Your task to perform on an android device: Go to Yahoo.com Image 0: 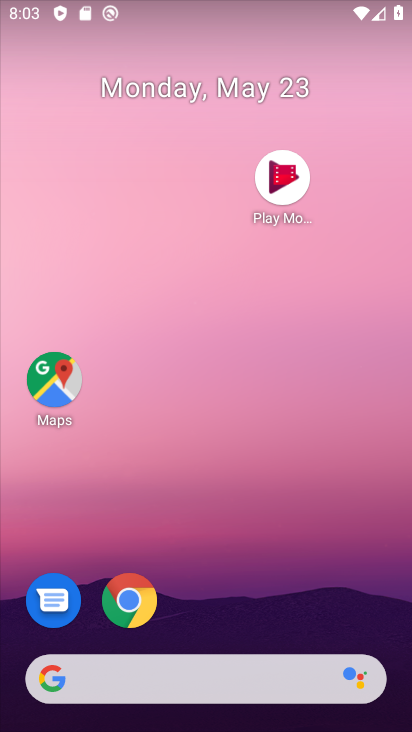
Step 0: press back button
Your task to perform on an android device: Go to Yahoo.com Image 1: 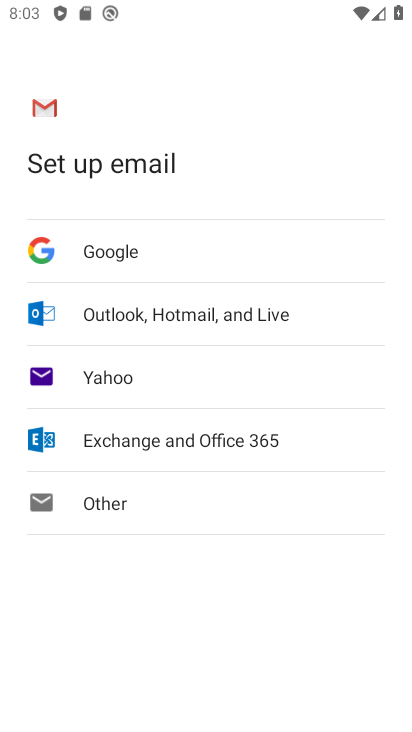
Step 1: press back button
Your task to perform on an android device: Go to Yahoo.com Image 2: 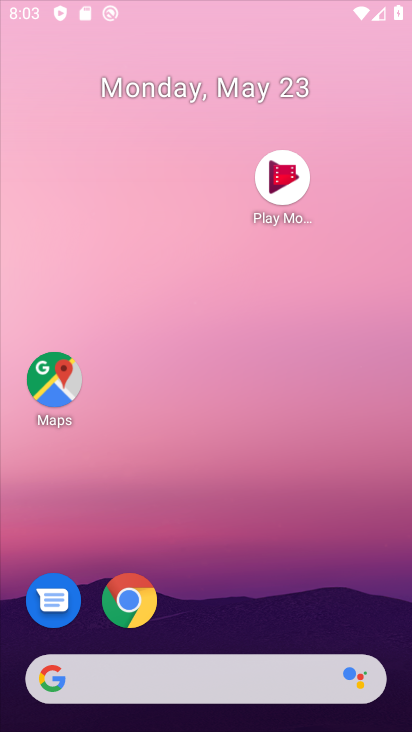
Step 2: press back button
Your task to perform on an android device: Go to Yahoo.com Image 3: 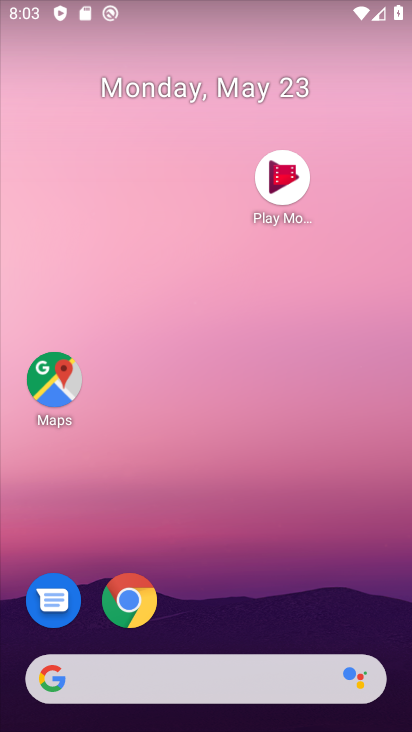
Step 3: press home button
Your task to perform on an android device: Go to Yahoo.com Image 4: 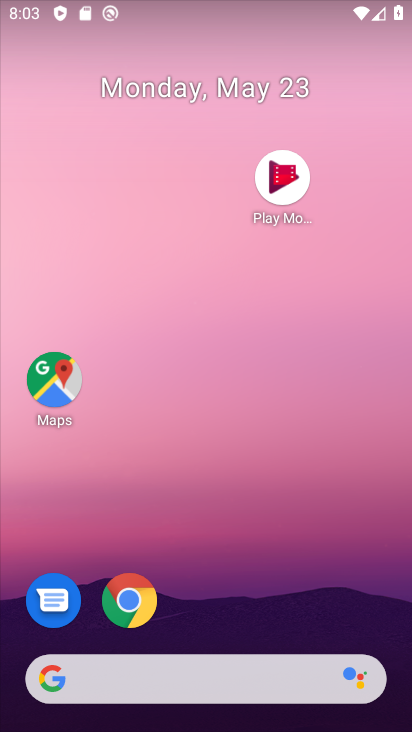
Step 4: press home button
Your task to perform on an android device: Go to Yahoo.com Image 5: 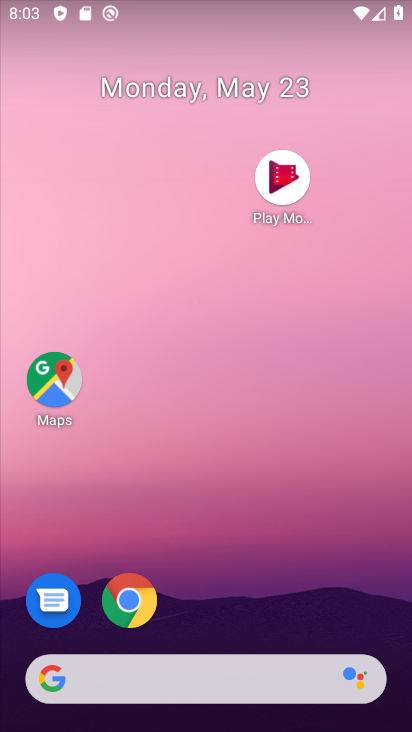
Step 5: press home button
Your task to perform on an android device: Go to Yahoo.com Image 6: 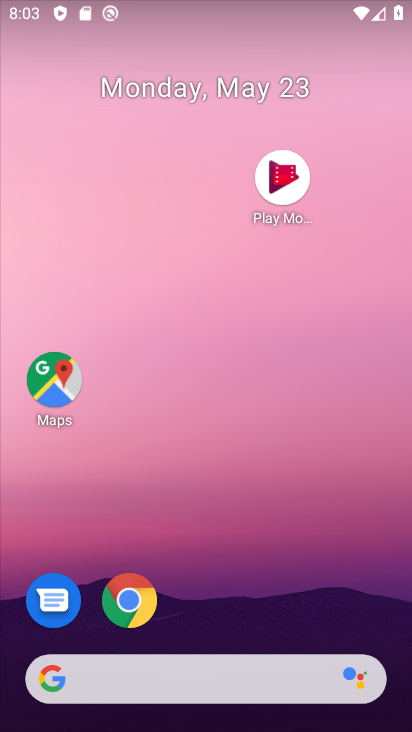
Step 6: drag from (245, 718) to (243, 48)
Your task to perform on an android device: Go to Yahoo.com Image 7: 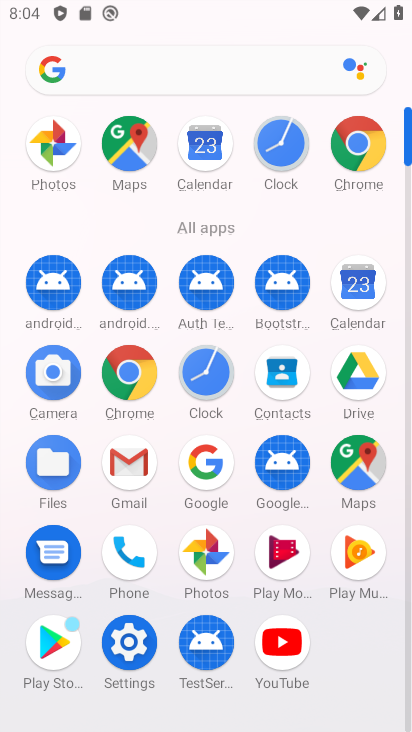
Step 7: click (352, 154)
Your task to perform on an android device: Go to Yahoo.com Image 8: 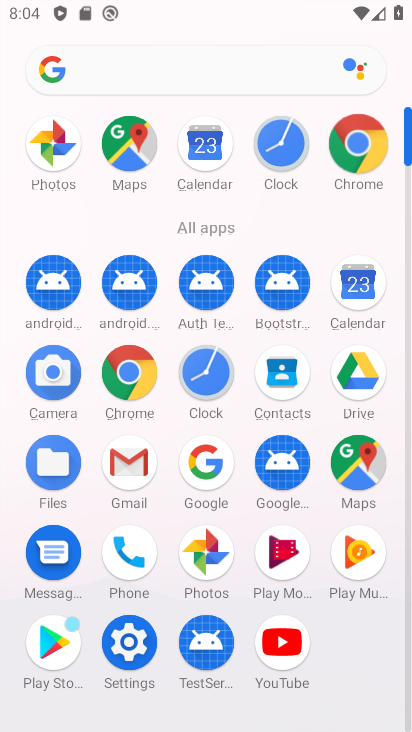
Step 8: click (353, 151)
Your task to perform on an android device: Go to Yahoo.com Image 9: 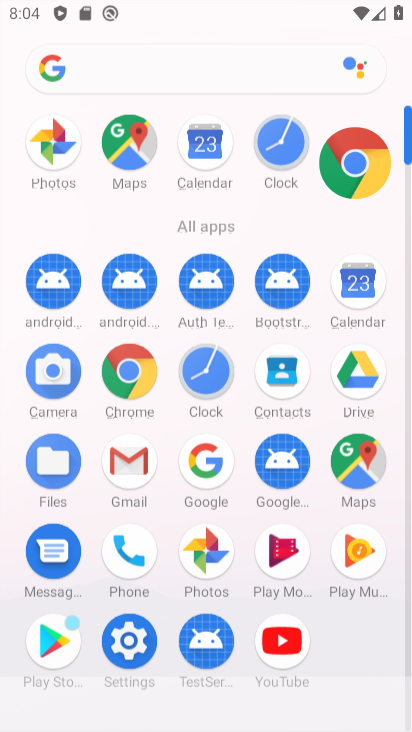
Step 9: click (354, 149)
Your task to perform on an android device: Go to Yahoo.com Image 10: 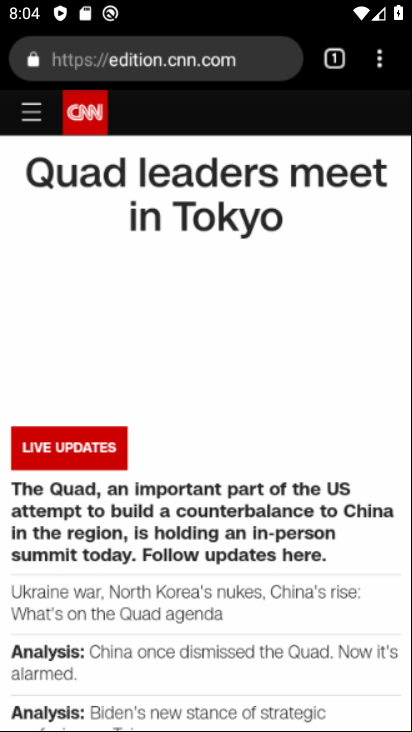
Step 10: click (354, 149)
Your task to perform on an android device: Go to Yahoo.com Image 11: 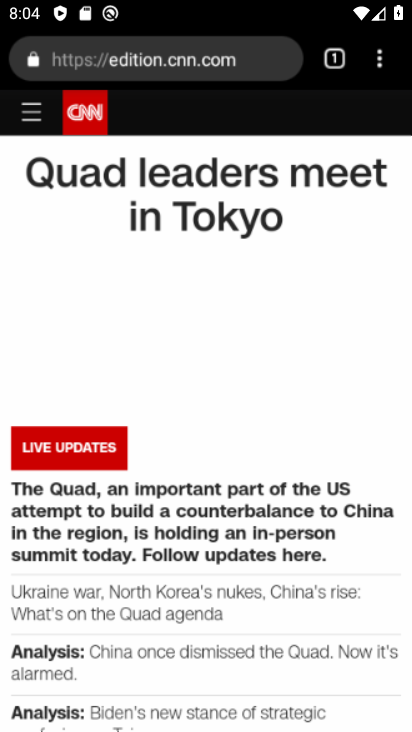
Step 11: click (346, 149)
Your task to perform on an android device: Go to Yahoo.com Image 12: 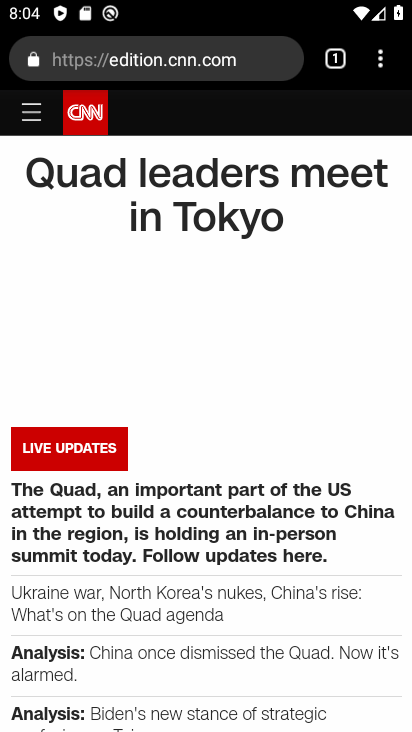
Step 12: click (347, 149)
Your task to perform on an android device: Go to Yahoo.com Image 13: 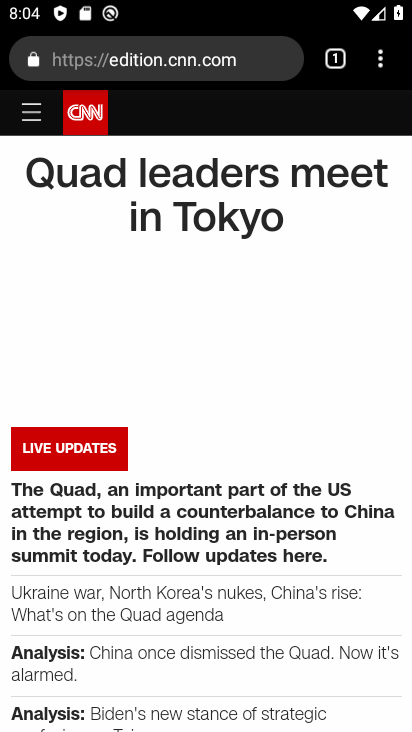
Step 13: click (347, 149)
Your task to perform on an android device: Go to Yahoo.com Image 14: 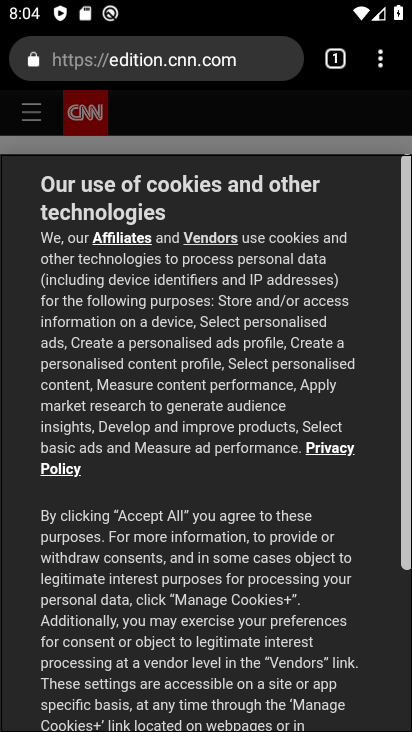
Step 14: click (378, 73)
Your task to perform on an android device: Go to Yahoo.com Image 15: 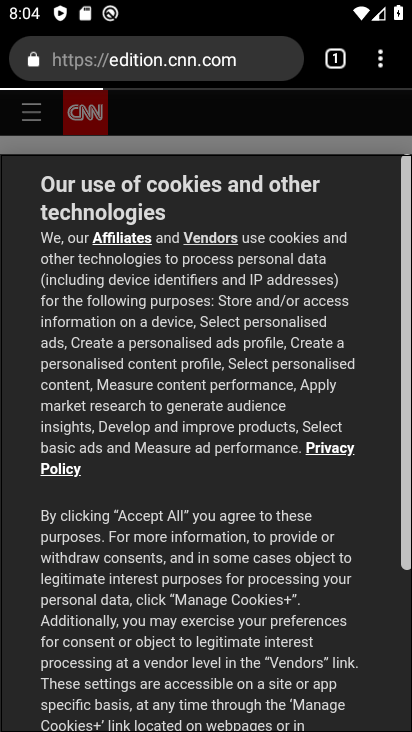
Step 15: click (378, 60)
Your task to perform on an android device: Go to Yahoo.com Image 16: 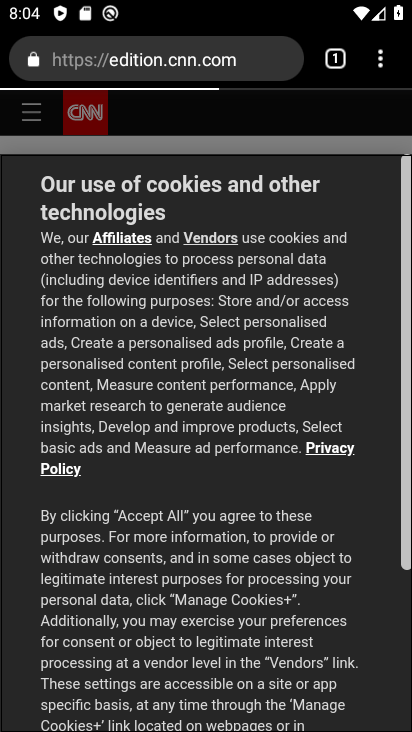
Step 16: drag from (378, 58) to (176, 117)
Your task to perform on an android device: Go to Yahoo.com Image 17: 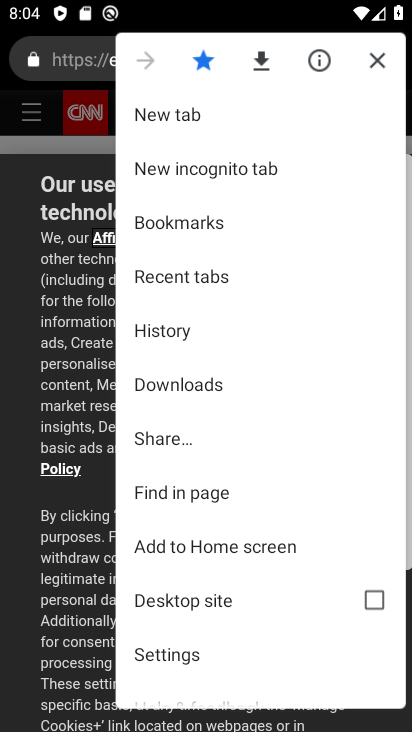
Step 17: click (169, 116)
Your task to perform on an android device: Go to Yahoo.com Image 18: 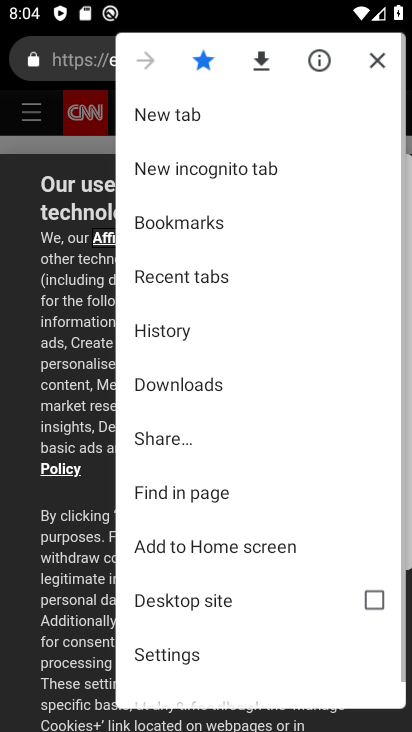
Step 18: click (150, 109)
Your task to perform on an android device: Go to Yahoo.com Image 19: 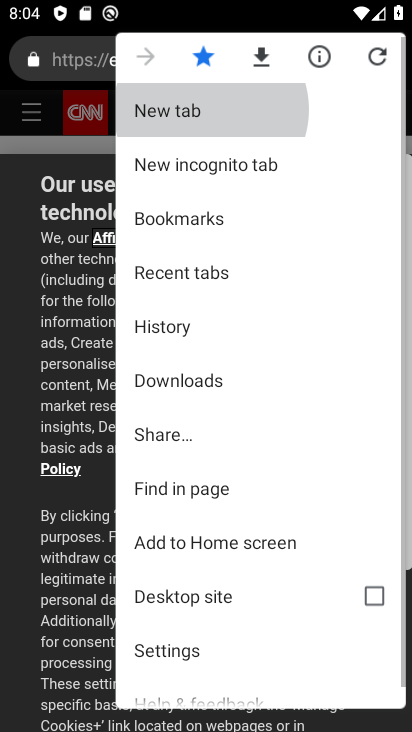
Step 19: click (153, 106)
Your task to perform on an android device: Go to Yahoo.com Image 20: 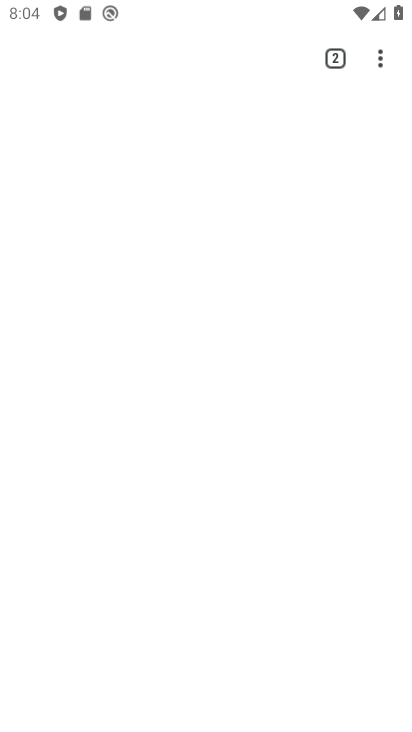
Step 20: click (156, 108)
Your task to perform on an android device: Go to Yahoo.com Image 21: 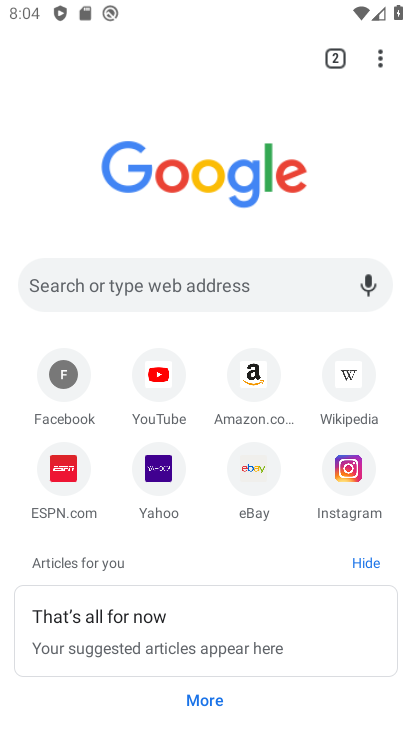
Step 21: click (172, 106)
Your task to perform on an android device: Go to Yahoo.com Image 22: 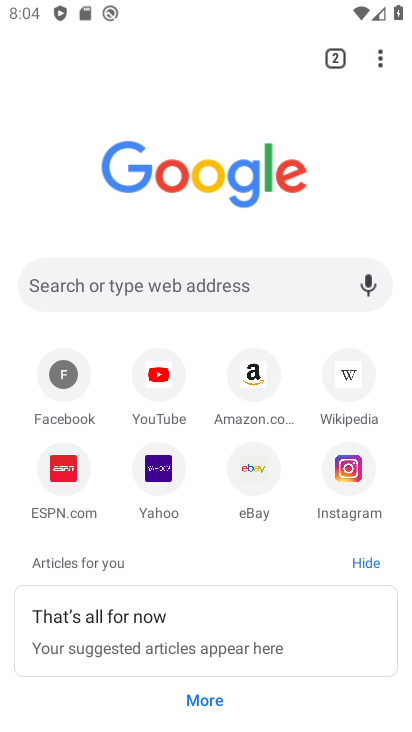
Step 22: click (160, 430)
Your task to perform on an android device: Go to Yahoo.com Image 23: 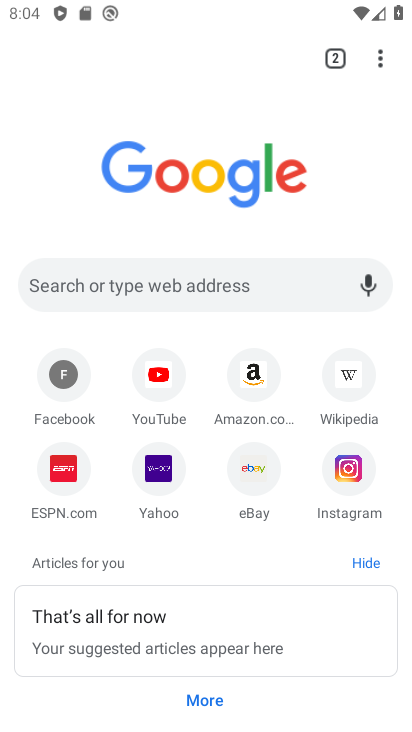
Step 23: click (156, 462)
Your task to perform on an android device: Go to Yahoo.com Image 24: 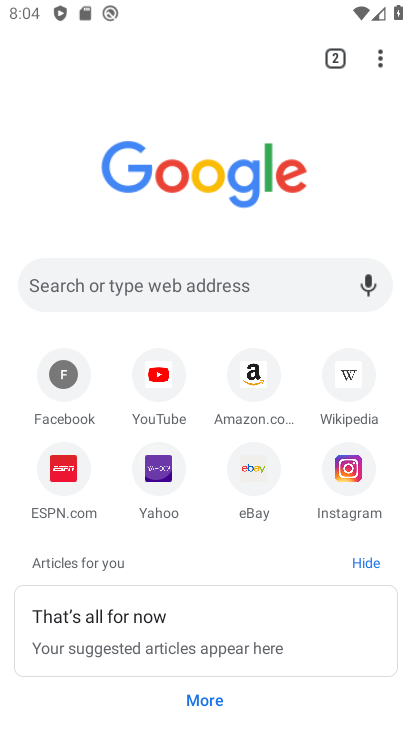
Step 24: click (157, 463)
Your task to perform on an android device: Go to Yahoo.com Image 25: 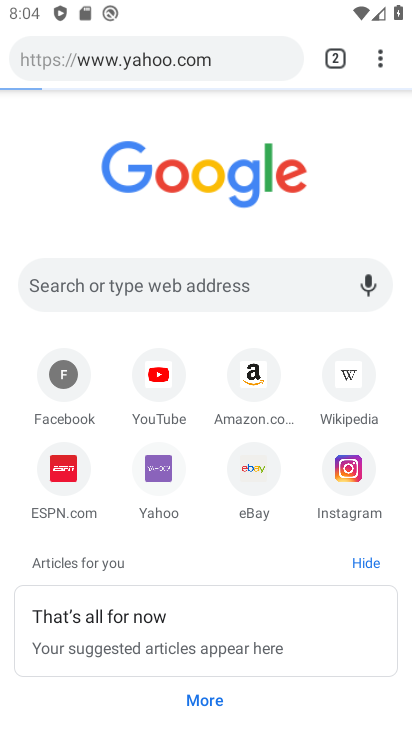
Step 25: click (159, 463)
Your task to perform on an android device: Go to Yahoo.com Image 26: 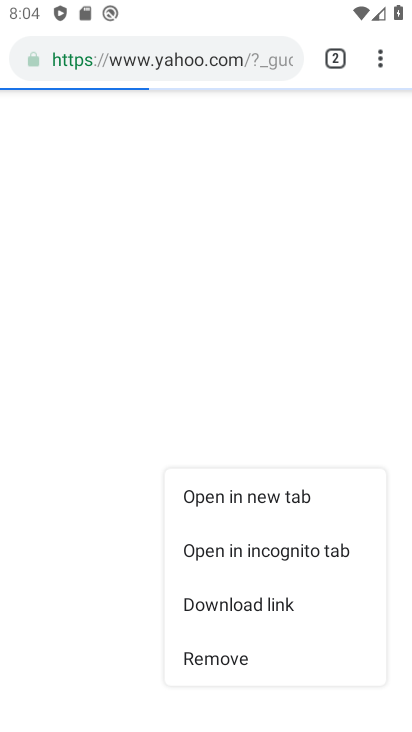
Step 26: click (165, 461)
Your task to perform on an android device: Go to Yahoo.com Image 27: 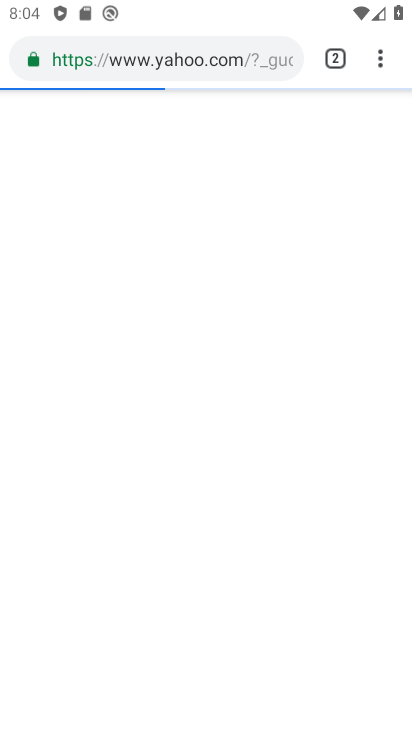
Step 27: click (170, 460)
Your task to perform on an android device: Go to Yahoo.com Image 28: 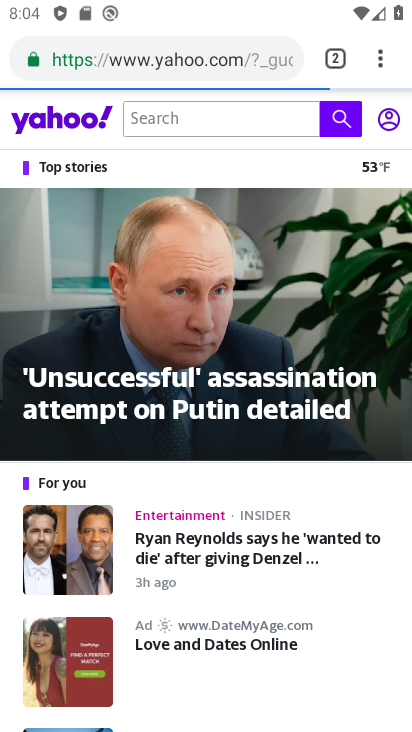
Step 28: task complete